Your task to perform on an android device: Open the calendar app, open the side menu, and click the "Day" option Image 0: 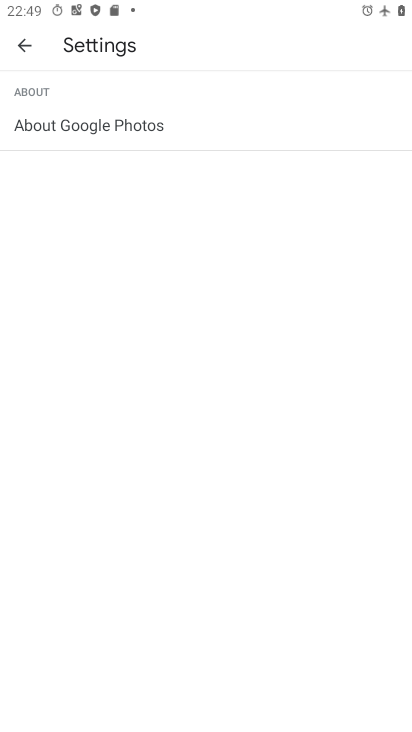
Step 0: press back button
Your task to perform on an android device: Open the calendar app, open the side menu, and click the "Day" option Image 1: 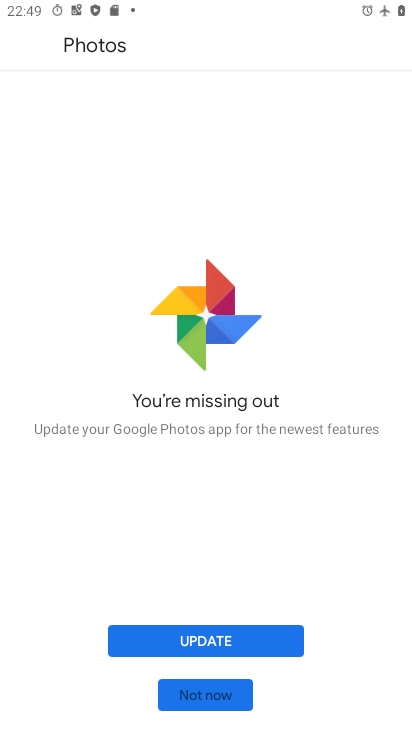
Step 1: press back button
Your task to perform on an android device: Open the calendar app, open the side menu, and click the "Day" option Image 2: 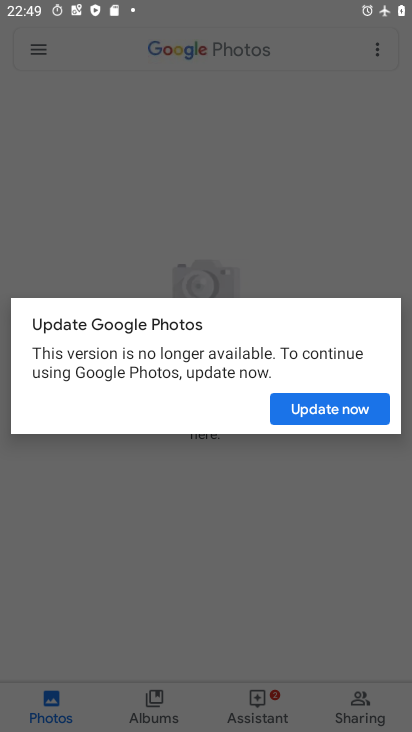
Step 2: press back button
Your task to perform on an android device: Open the calendar app, open the side menu, and click the "Day" option Image 3: 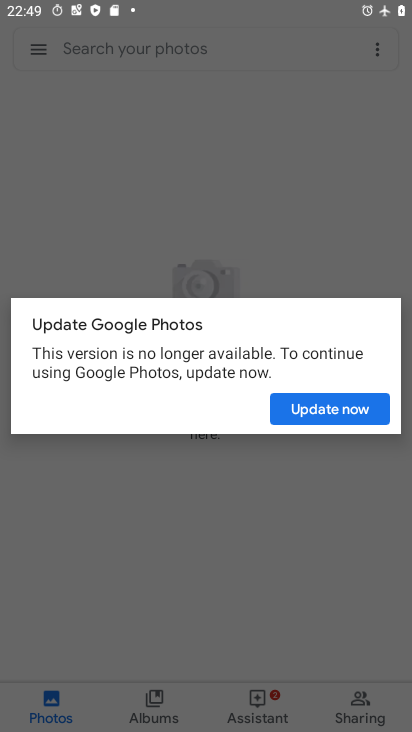
Step 3: press home button
Your task to perform on an android device: Open the calendar app, open the side menu, and click the "Day" option Image 4: 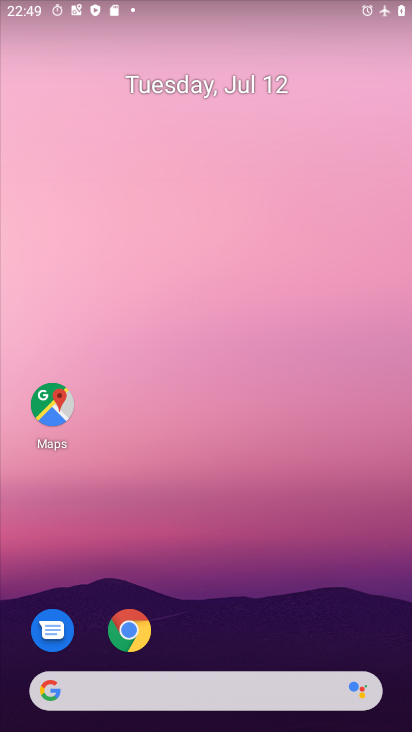
Step 4: drag from (257, 626) to (277, 44)
Your task to perform on an android device: Open the calendar app, open the side menu, and click the "Day" option Image 5: 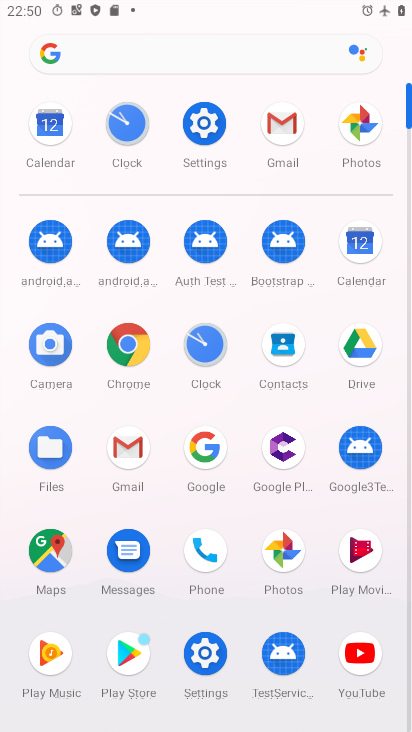
Step 5: click (367, 250)
Your task to perform on an android device: Open the calendar app, open the side menu, and click the "Day" option Image 6: 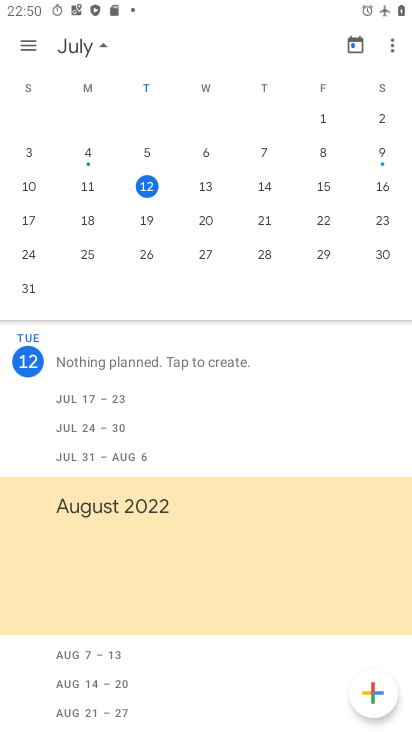
Step 6: click (28, 47)
Your task to perform on an android device: Open the calendar app, open the side menu, and click the "Day" option Image 7: 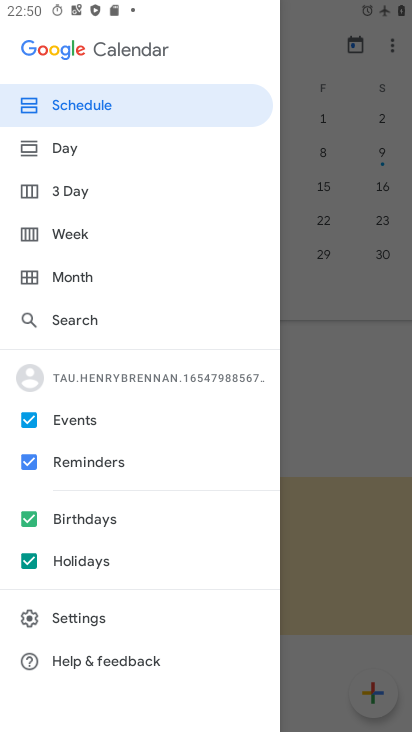
Step 7: click (91, 147)
Your task to perform on an android device: Open the calendar app, open the side menu, and click the "Day" option Image 8: 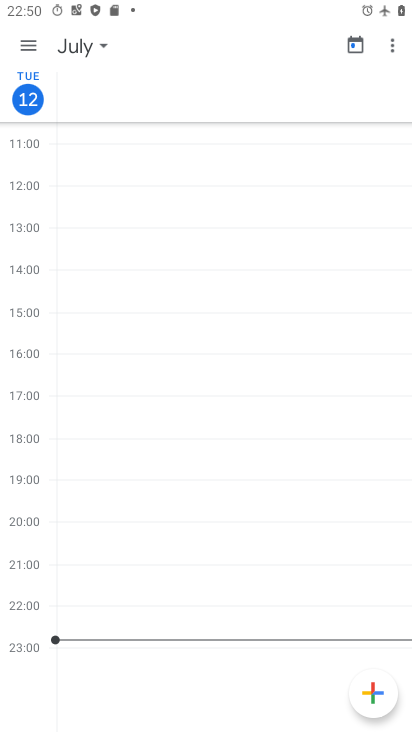
Step 8: task complete